Your task to perform on an android device: Open settings on Google Maps Image 0: 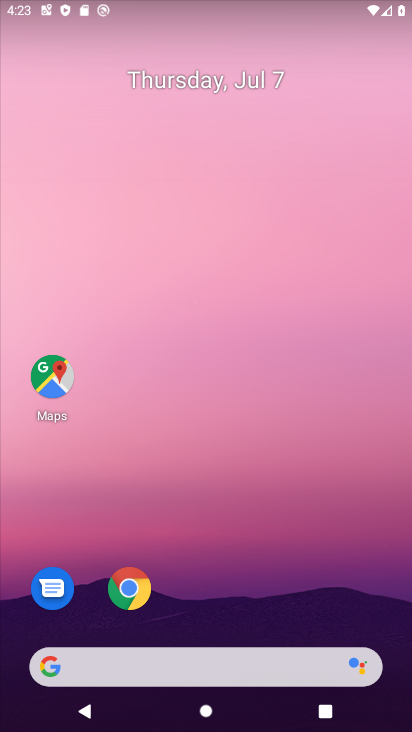
Step 0: drag from (287, 549) to (390, 16)
Your task to perform on an android device: Open settings on Google Maps Image 1: 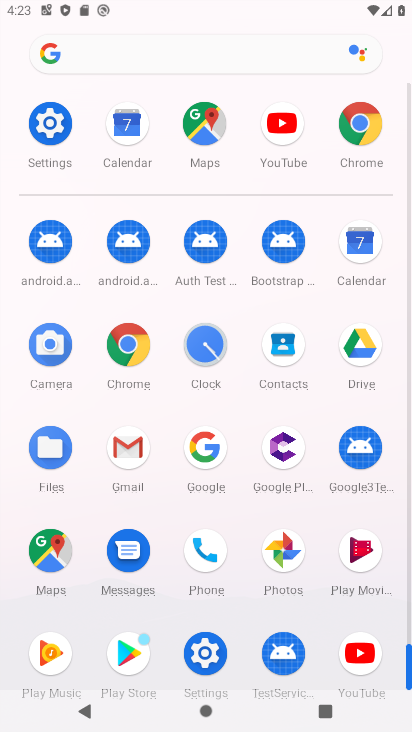
Step 1: click (38, 553)
Your task to perform on an android device: Open settings on Google Maps Image 2: 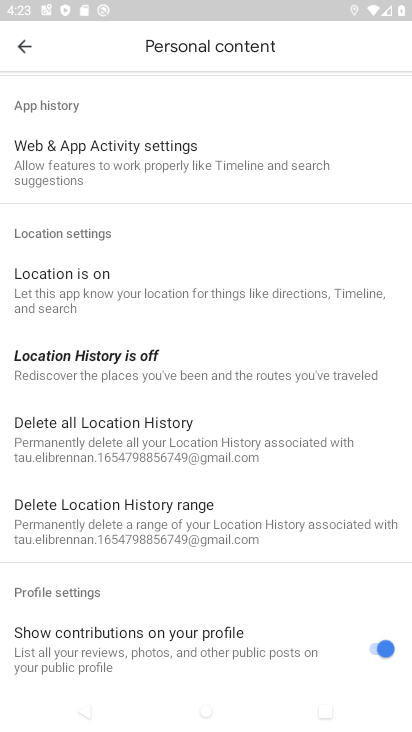
Step 2: task complete